Your task to perform on an android device: check battery use Image 0: 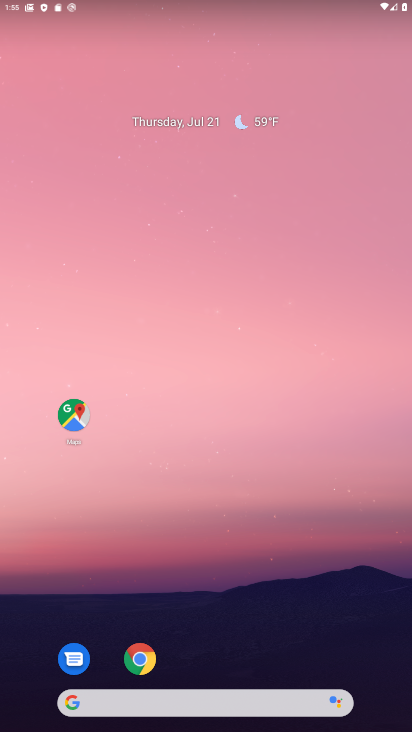
Step 0: drag from (216, 535) to (261, 154)
Your task to perform on an android device: check battery use Image 1: 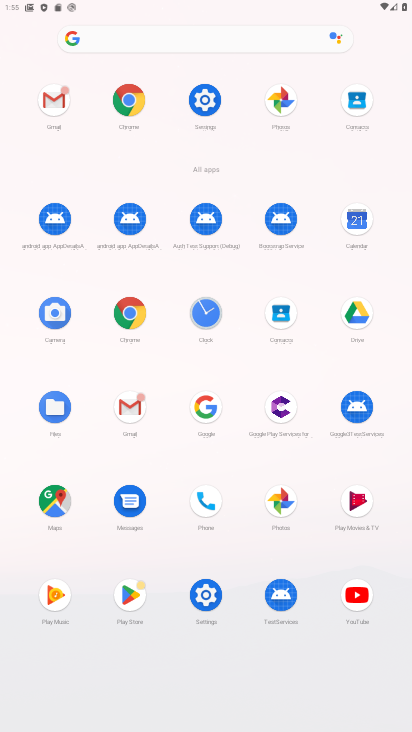
Step 1: click (215, 100)
Your task to perform on an android device: check battery use Image 2: 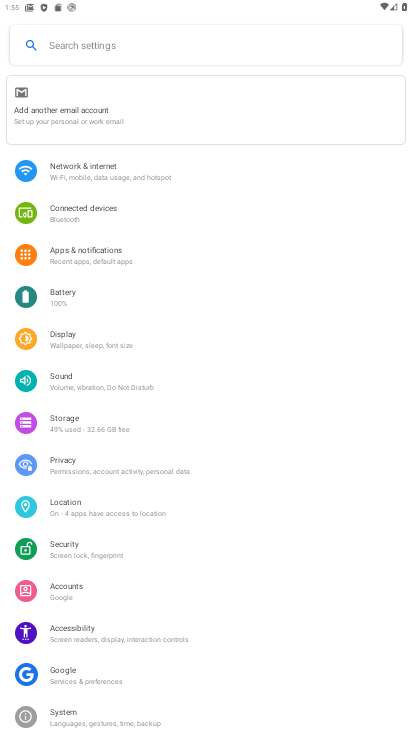
Step 2: drag from (164, 627) to (244, 287)
Your task to perform on an android device: check battery use Image 3: 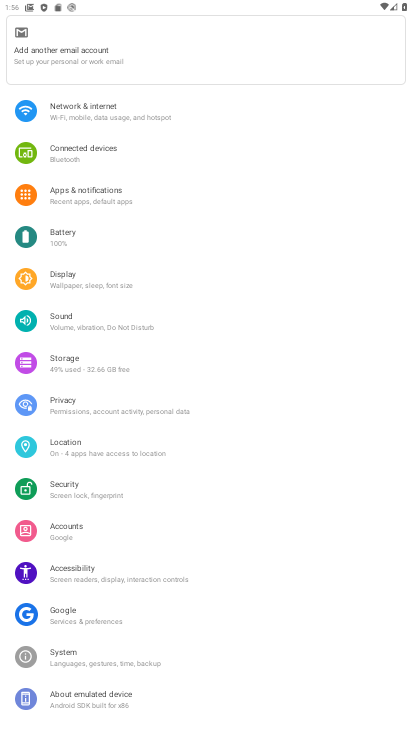
Step 3: click (62, 244)
Your task to perform on an android device: check battery use Image 4: 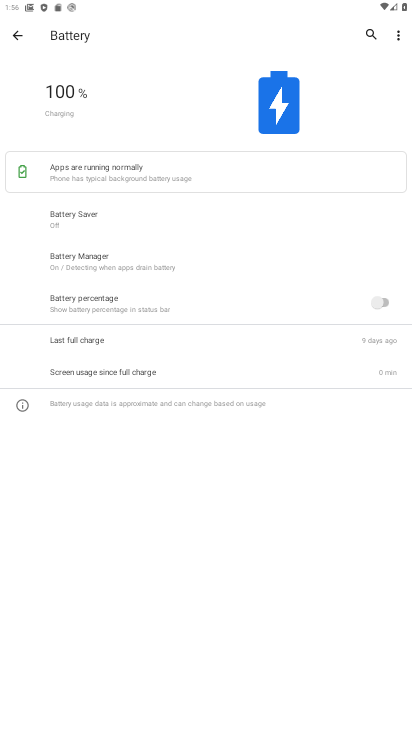
Step 4: click (399, 28)
Your task to perform on an android device: check battery use Image 5: 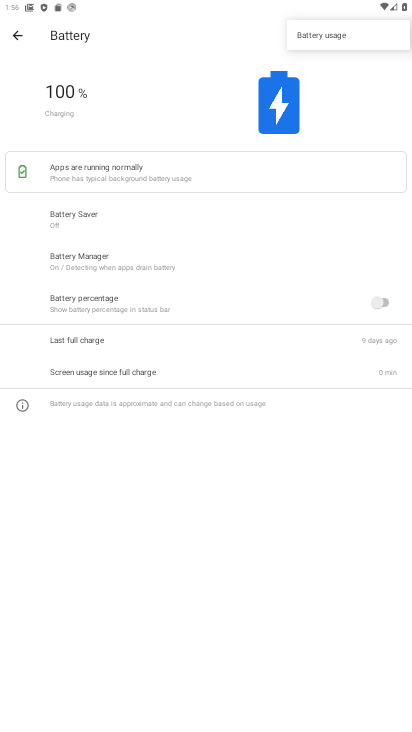
Step 5: click (349, 30)
Your task to perform on an android device: check battery use Image 6: 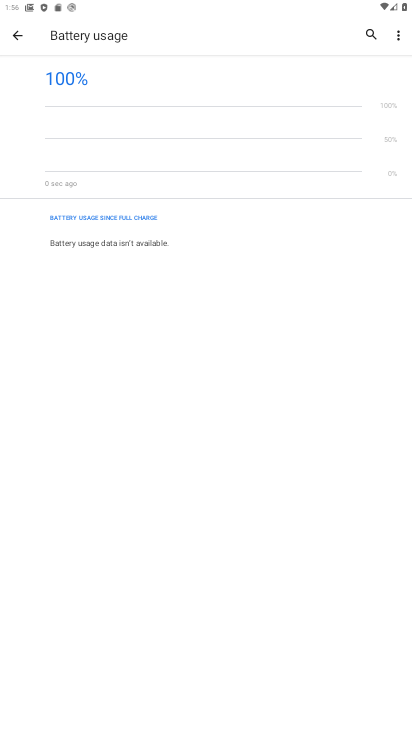
Step 6: task complete